Your task to perform on an android device: Do I have any events today? Image 0: 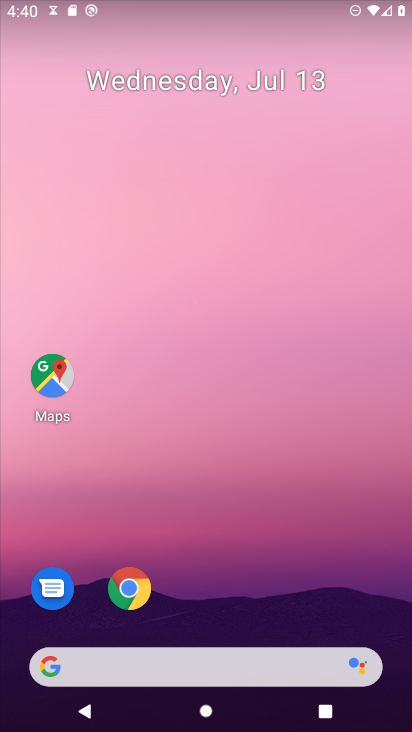
Step 0: drag from (260, 606) to (265, 279)
Your task to perform on an android device: Do I have any events today? Image 1: 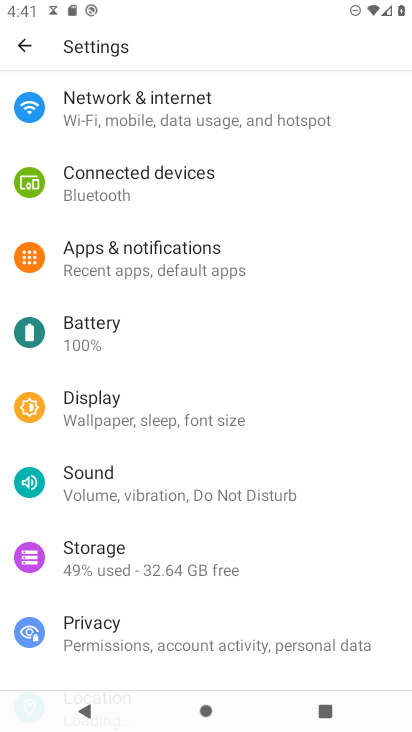
Step 1: press back button
Your task to perform on an android device: Do I have any events today? Image 2: 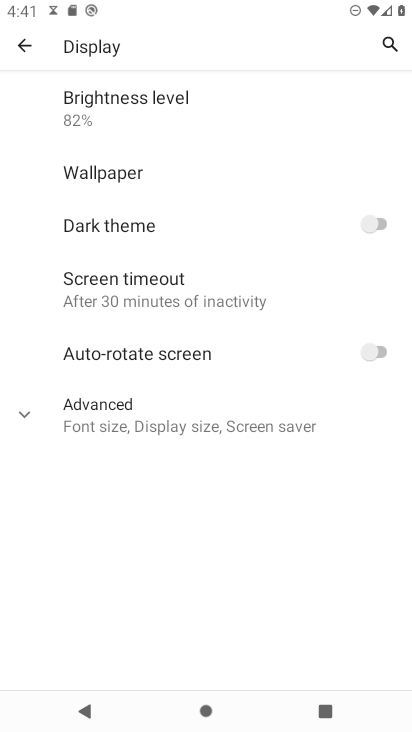
Step 2: click (27, 41)
Your task to perform on an android device: Do I have any events today? Image 3: 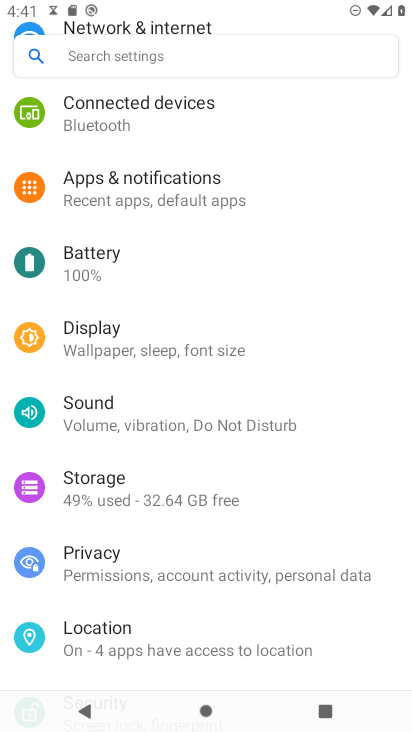
Step 3: press back button
Your task to perform on an android device: Do I have any events today? Image 4: 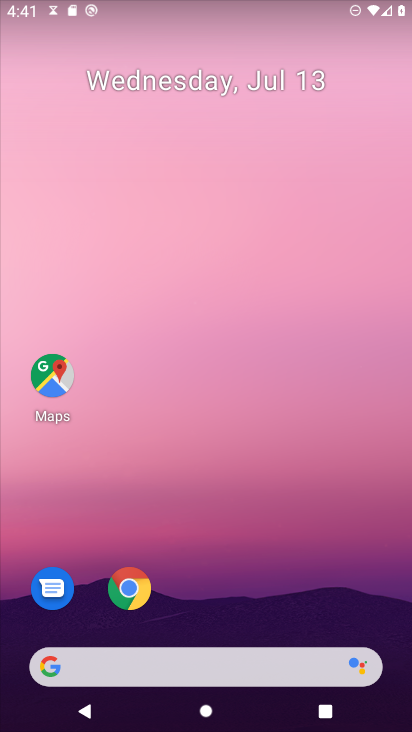
Step 4: drag from (236, 657) to (157, 119)
Your task to perform on an android device: Do I have any events today? Image 5: 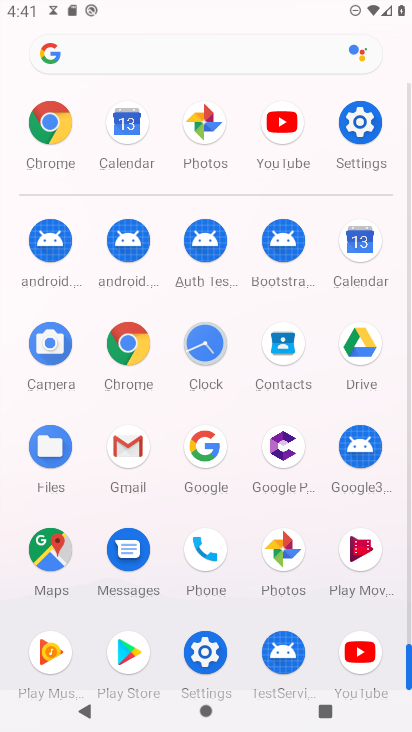
Step 5: click (364, 243)
Your task to perform on an android device: Do I have any events today? Image 6: 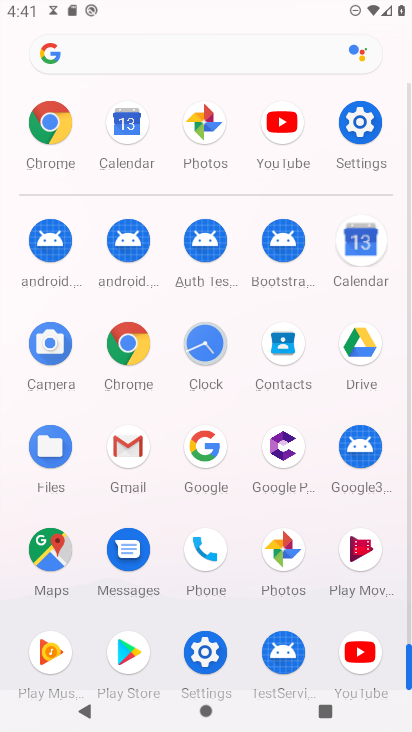
Step 6: click (363, 242)
Your task to perform on an android device: Do I have any events today? Image 7: 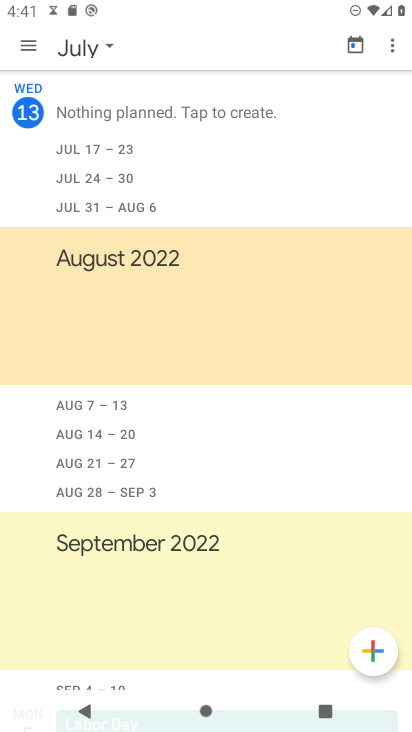
Step 7: click (109, 58)
Your task to perform on an android device: Do I have any events today? Image 8: 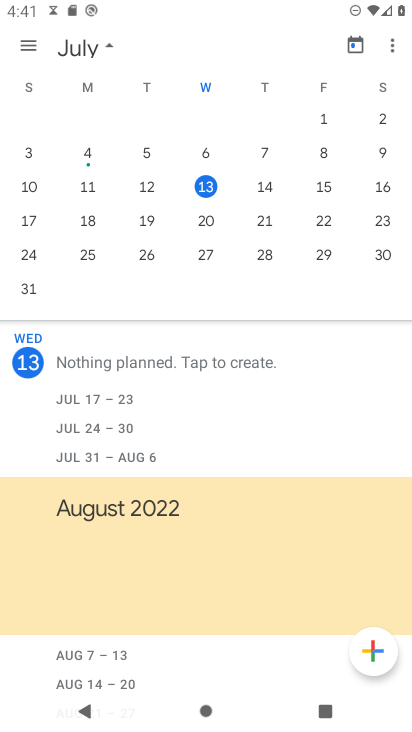
Step 8: click (208, 180)
Your task to perform on an android device: Do I have any events today? Image 9: 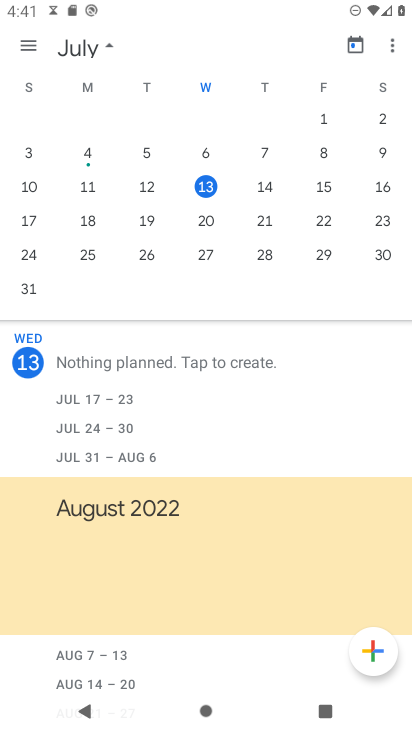
Step 9: task complete